Your task to perform on an android device: Open sound settings Image 0: 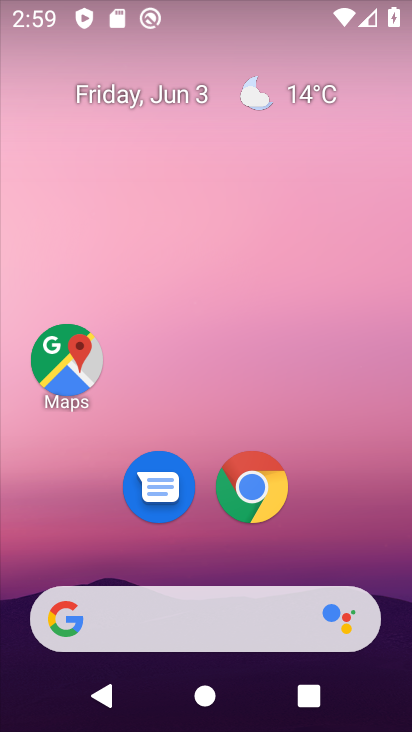
Step 0: drag from (206, 534) to (280, 3)
Your task to perform on an android device: Open sound settings Image 1: 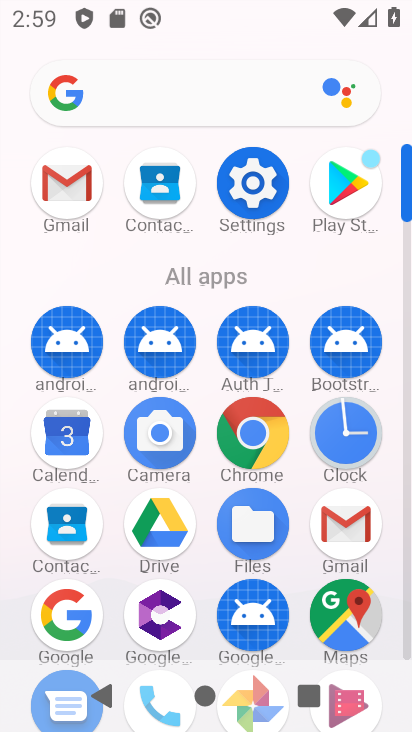
Step 1: click (250, 173)
Your task to perform on an android device: Open sound settings Image 2: 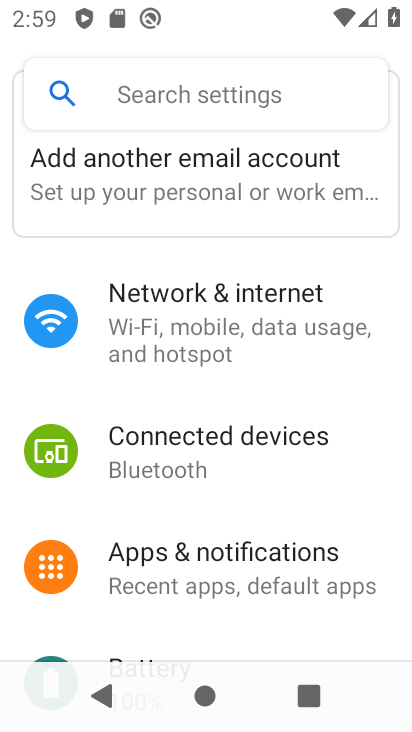
Step 2: drag from (208, 601) to (274, 102)
Your task to perform on an android device: Open sound settings Image 3: 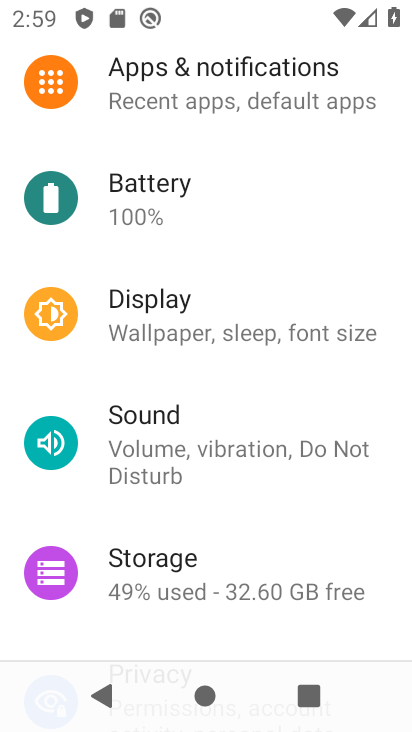
Step 3: click (166, 442)
Your task to perform on an android device: Open sound settings Image 4: 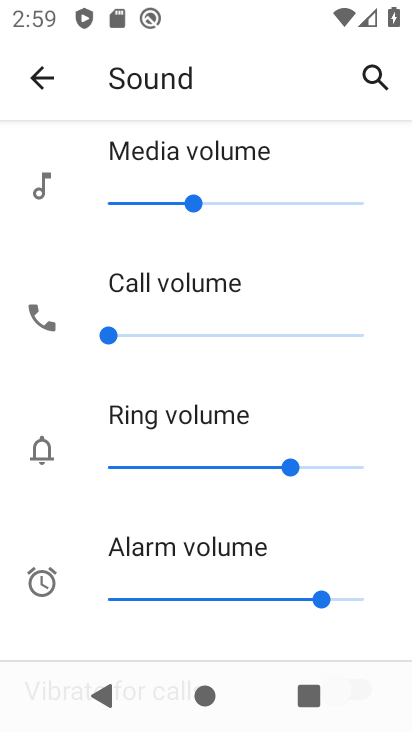
Step 4: task complete